Your task to perform on an android device: uninstall "Flipkart Online Shopping App" Image 0: 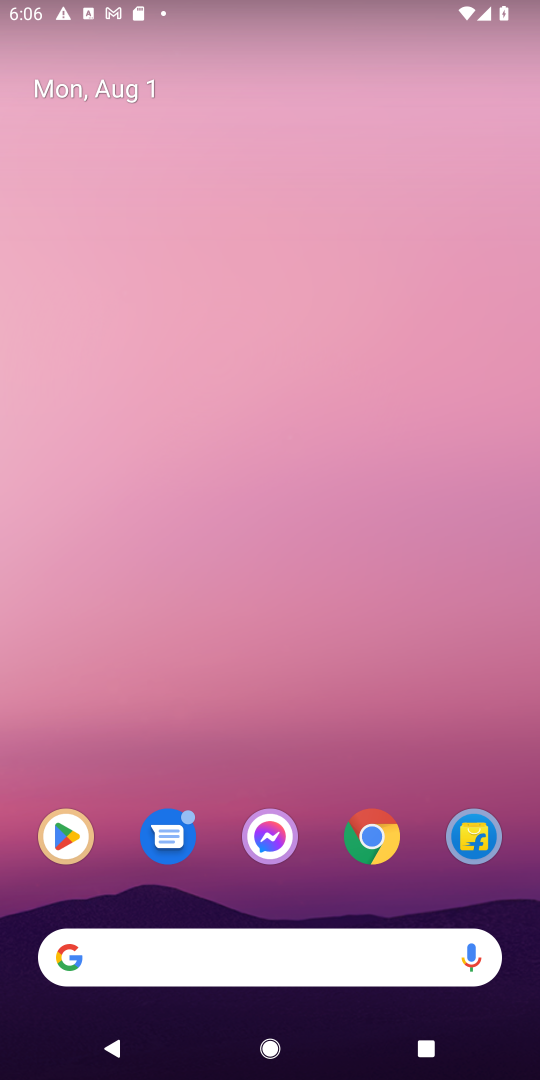
Step 0: press home button
Your task to perform on an android device: uninstall "Flipkart Online Shopping App" Image 1: 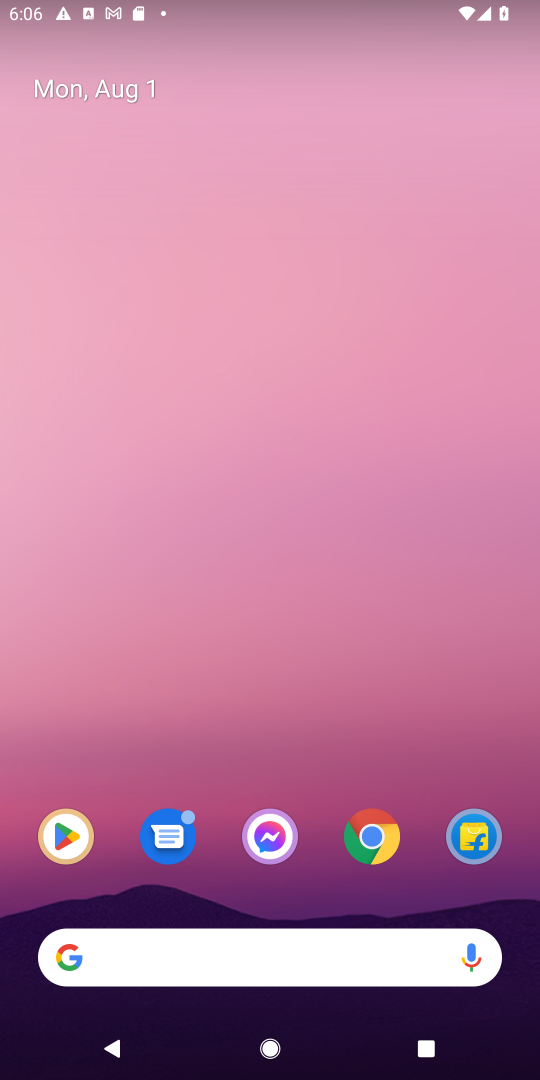
Step 1: click (72, 836)
Your task to perform on an android device: uninstall "Flipkart Online Shopping App" Image 2: 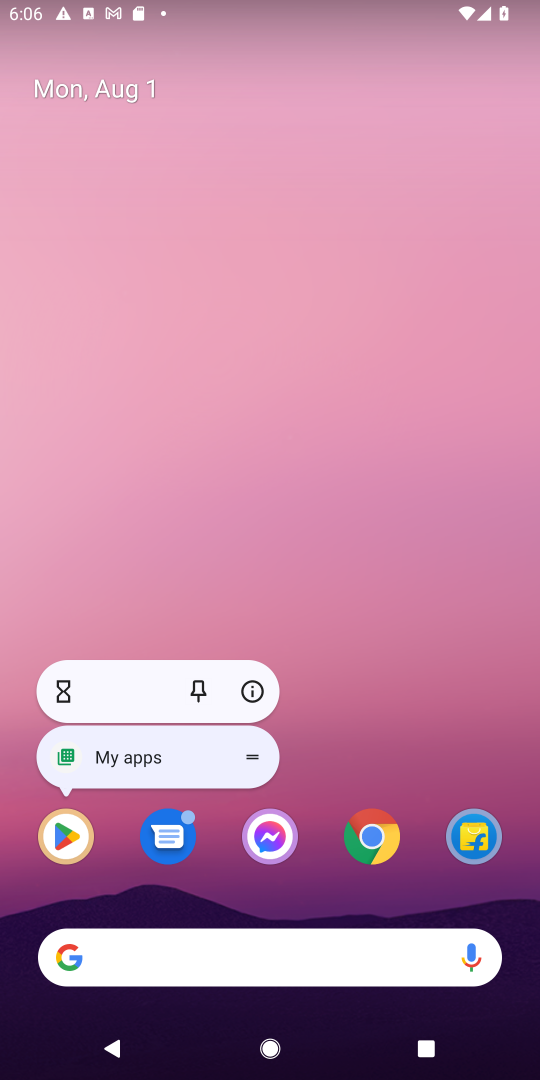
Step 2: click (65, 843)
Your task to perform on an android device: uninstall "Flipkart Online Shopping App" Image 3: 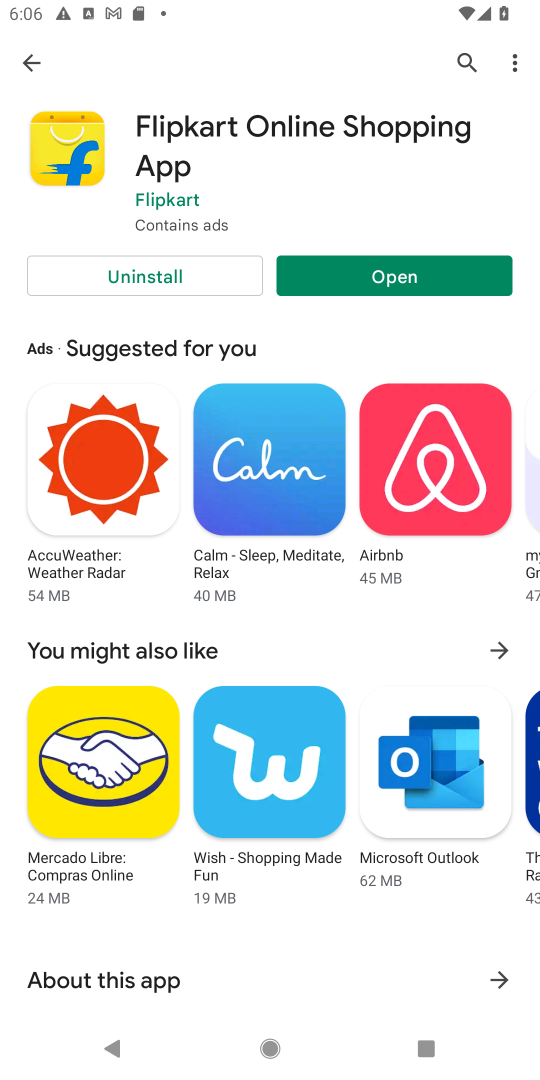
Step 3: click (183, 276)
Your task to perform on an android device: uninstall "Flipkart Online Shopping App" Image 4: 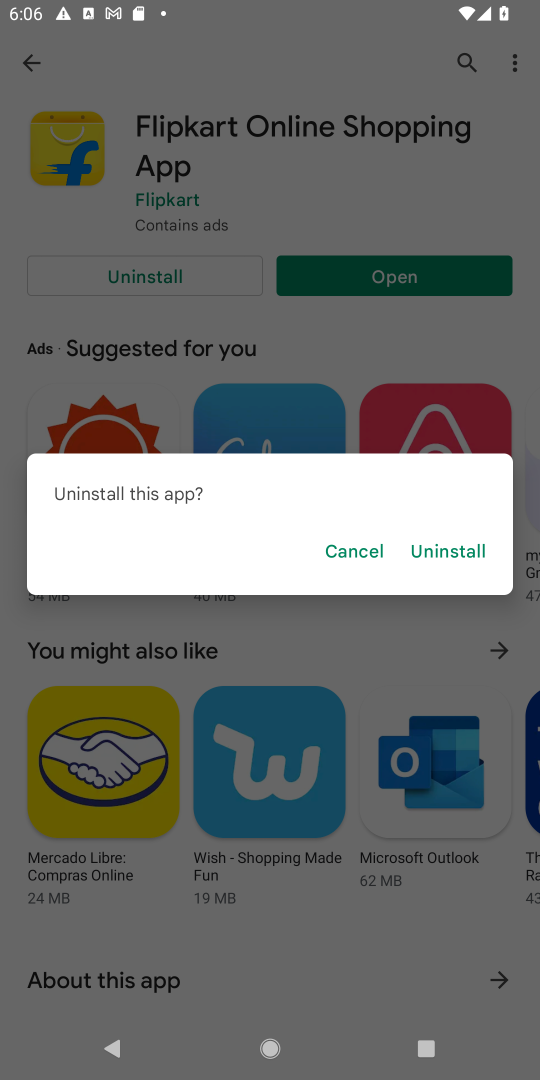
Step 4: click (424, 551)
Your task to perform on an android device: uninstall "Flipkart Online Shopping App" Image 5: 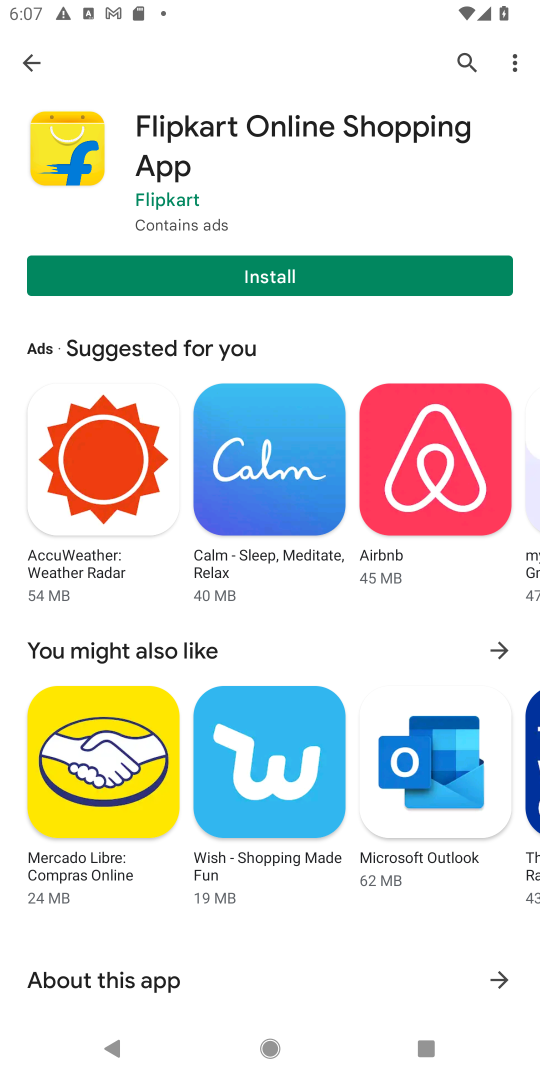
Step 5: task complete